Your task to perform on an android device: Search for seafood restaurants on Google Maps Image 0: 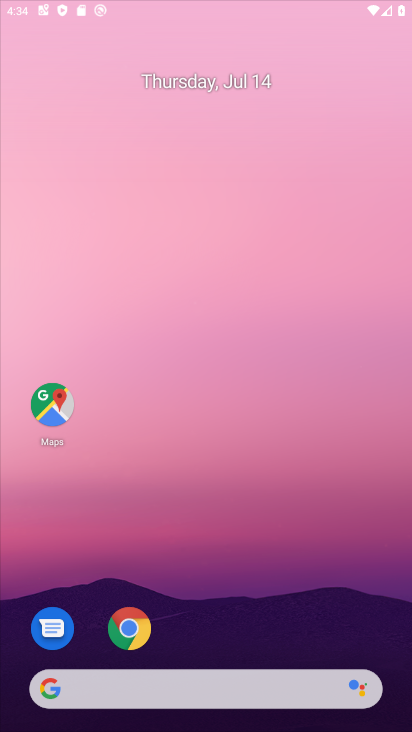
Step 0: click (318, 1)
Your task to perform on an android device: Search for seafood restaurants on Google Maps Image 1: 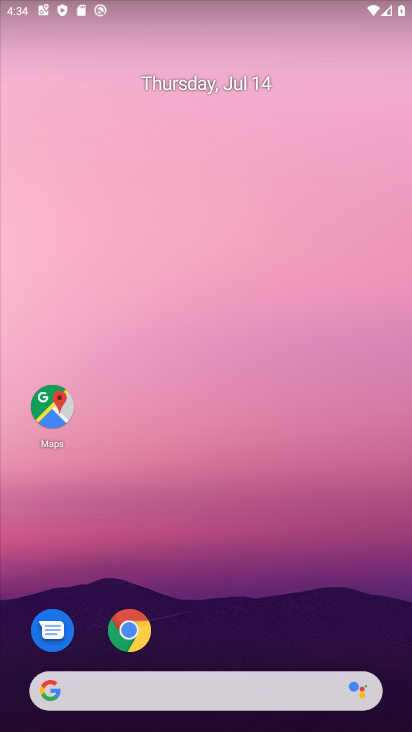
Step 1: drag from (217, 584) to (286, 54)
Your task to perform on an android device: Search for seafood restaurants on Google Maps Image 2: 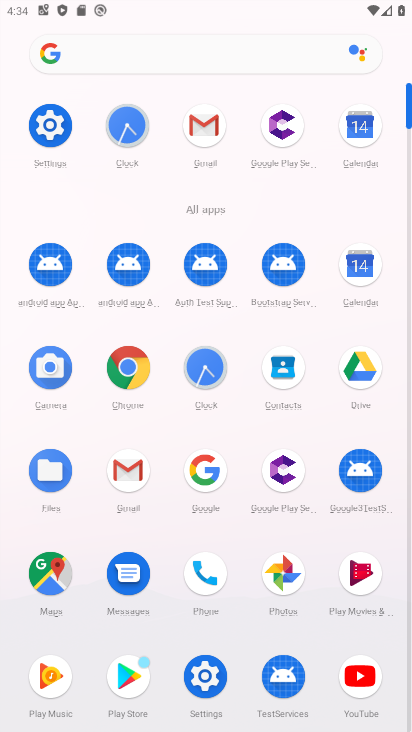
Step 2: click (44, 595)
Your task to perform on an android device: Search for seafood restaurants on Google Maps Image 3: 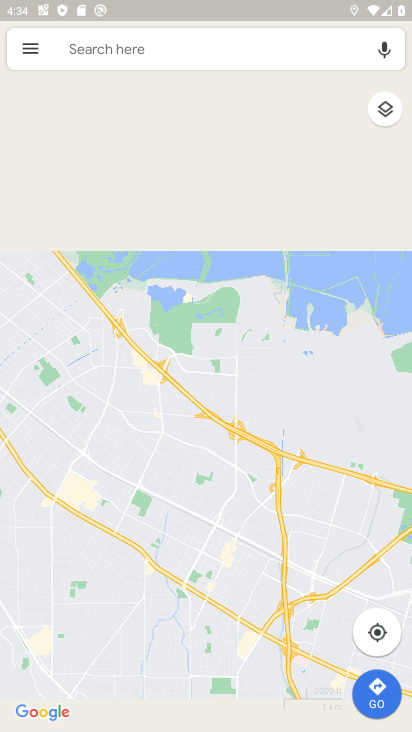
Step 3: click (205, 57)
Your task to perform on an android device: Search for seafood restaurants on Google Maps Image 4: 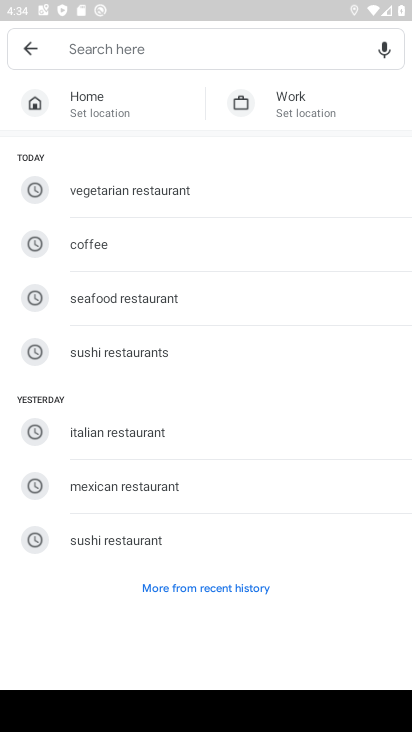
Step 4: click (138, 299)
Your task to perform on an android device: Search for seafood restaurants on Google Maps Image 5: 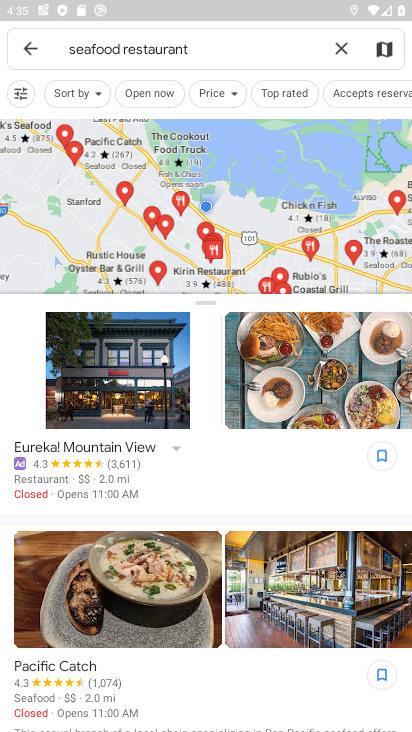
Step 5: task complete